Your task to perform on an android device: delete browsing data in the chrome app Image 0: 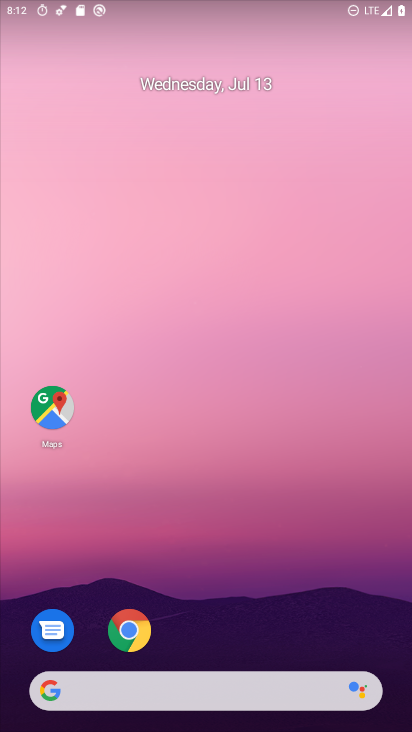
Step 0: drag from (371, 693) to (218, 14)
Your task to perform on an android device: delete browsing data in the chrome app Image 1: 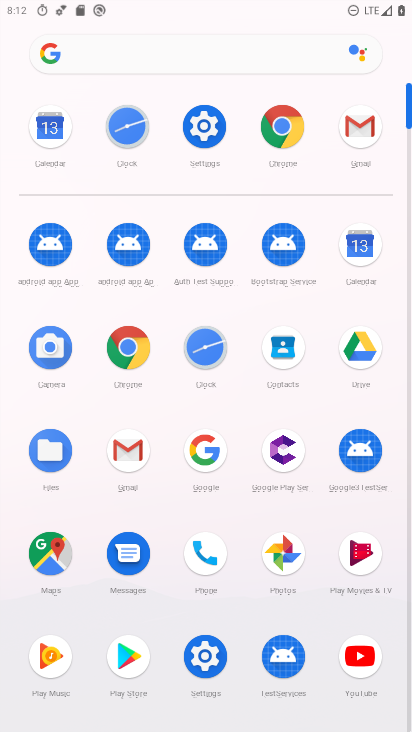
Step 1: click (280, 127)
Your task to perform on an android device: delete browsing data in the chrome app Image 2: 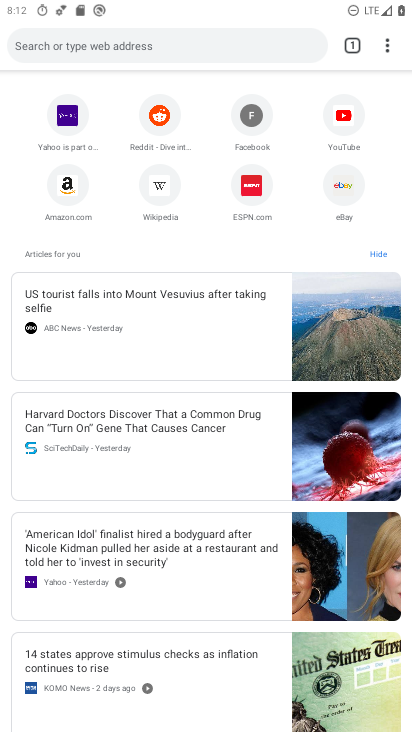
Step 2: click (389, 48)
Your task to perform on an android device: delete browsing data in the chrome app Image 3: 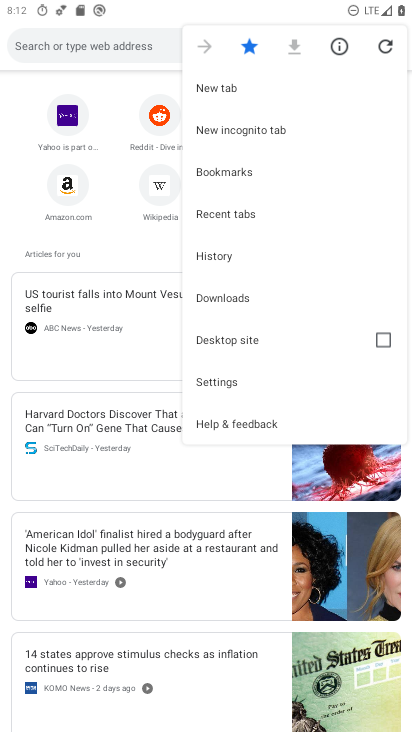
Step 3: click (207, 261)
Your task to perform on an android device: delete browsing data in the chrome app Image 4: 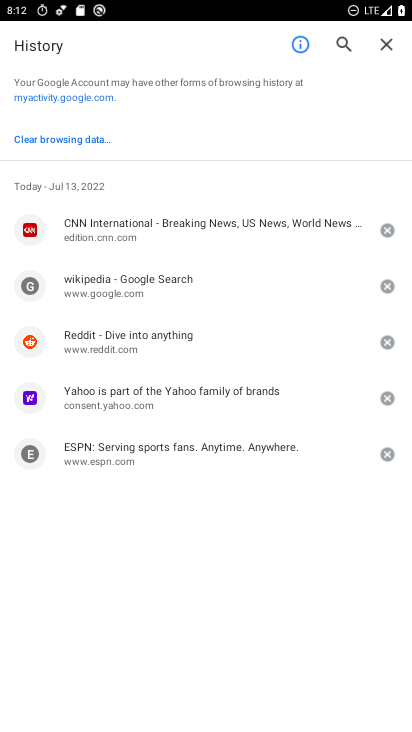
Step 4: click (66, 142)
Your task to perform on an android device: delete browsing data in the chrome app Image 5: 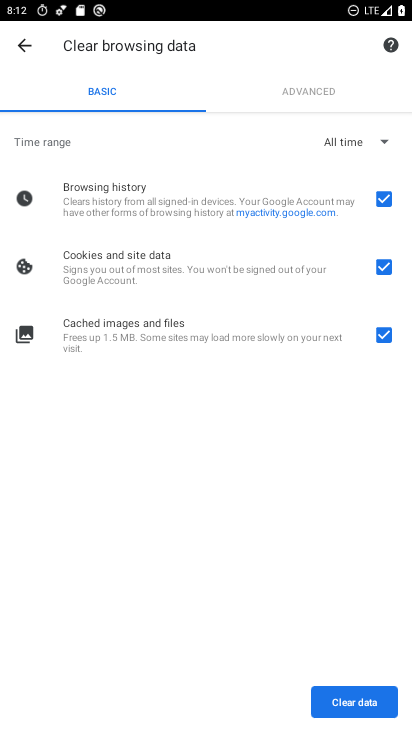
Step 5: click (346, 700)
Your task to perform on an android device: delete browsing data in the chrome app Image 6: 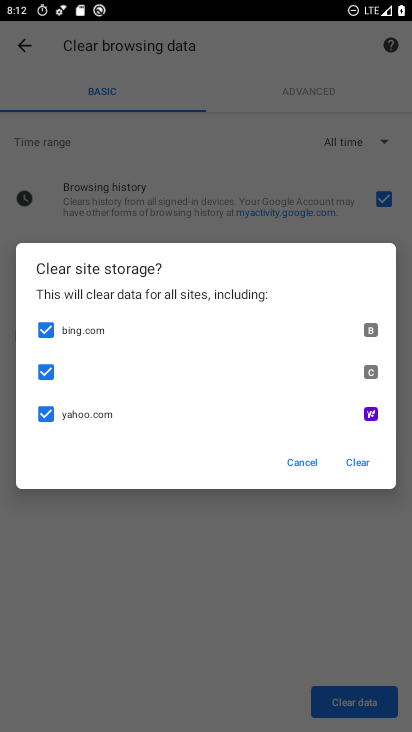
Step 6: click (356, 465)
Your task to perform on an android device: delete browsing data in the chrome app Image 7: 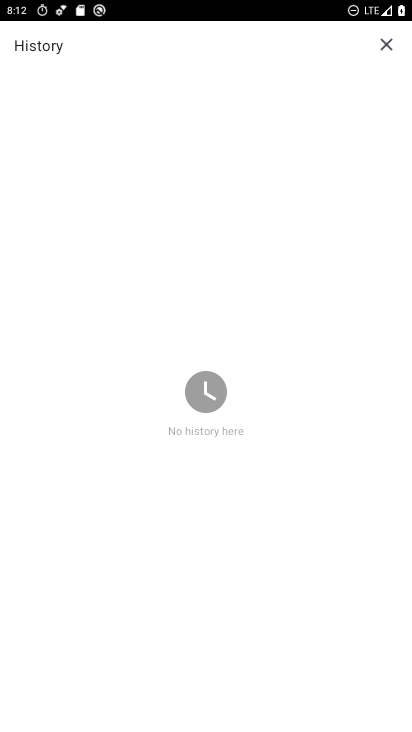
Step 7: task complete